Your task to perform on an android device: delete browsing data in the chrome app Image 0: 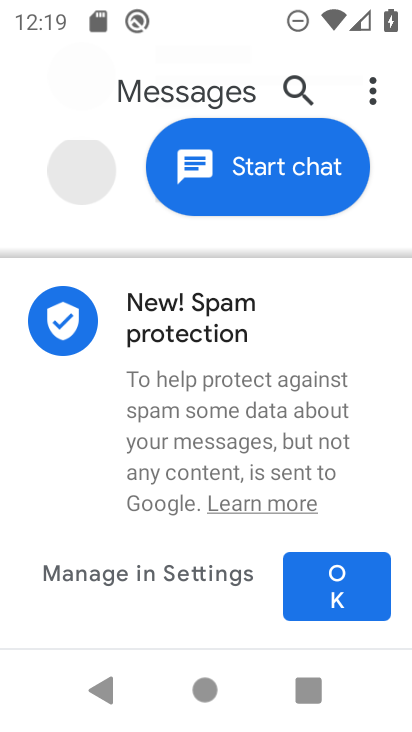
Step 0: press back button
Your task to perform on an android device: delete browsing data in the chrome app Image 1: 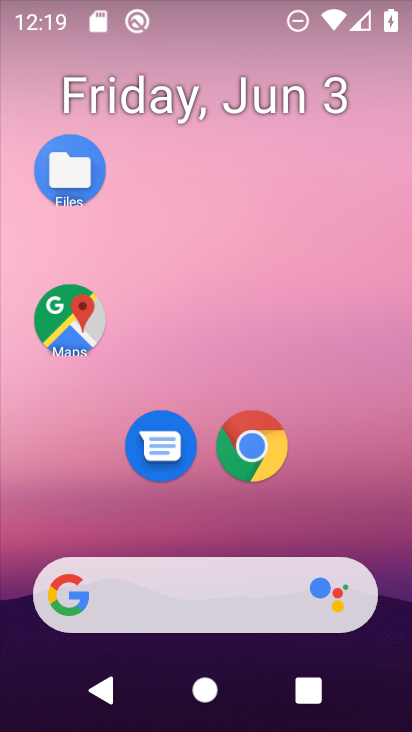
Step 1: drag from (231, 614) to (119, 34)
Your task to perform on an android device: delete browsing data in the chrome app Image 2: 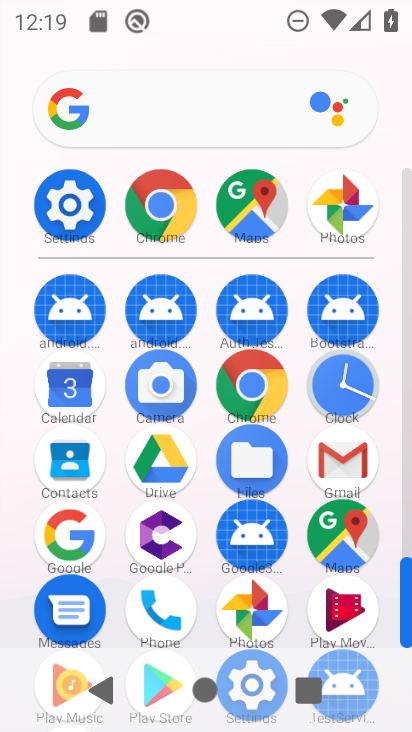
Step 2: click (253, 373)
Your task to perform on an android device: delete browsing data in the chrome app Image 3: 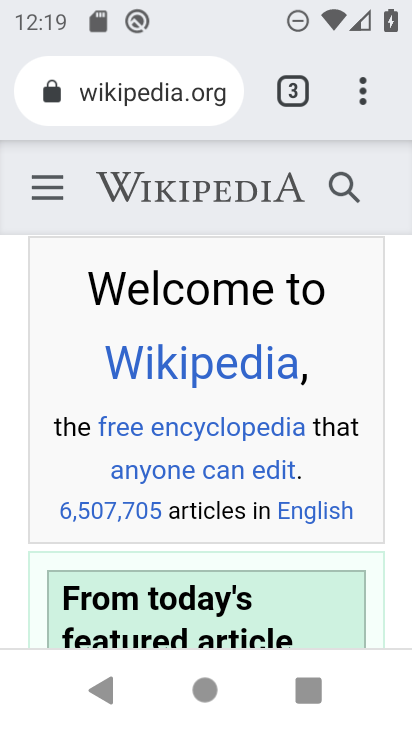
Step 3: drag from (354, 98) to (81, 516)
Your task to perform on an android device: delete browsing data in the chrome app Image 4: 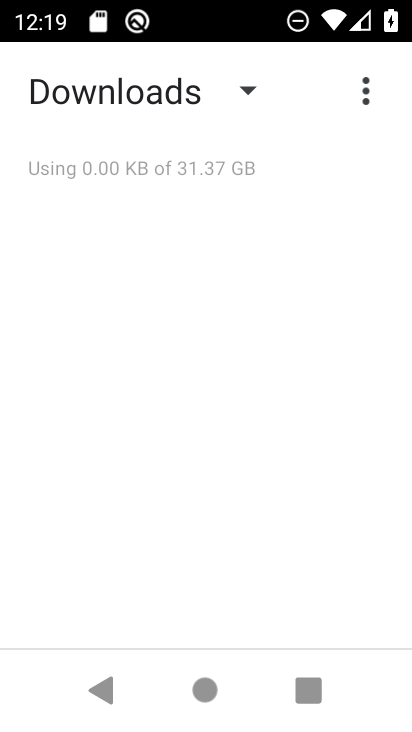
Step 4: click (367, 86)
Your task to perform on an android device: delete browsing data in the chrome app Image 5: 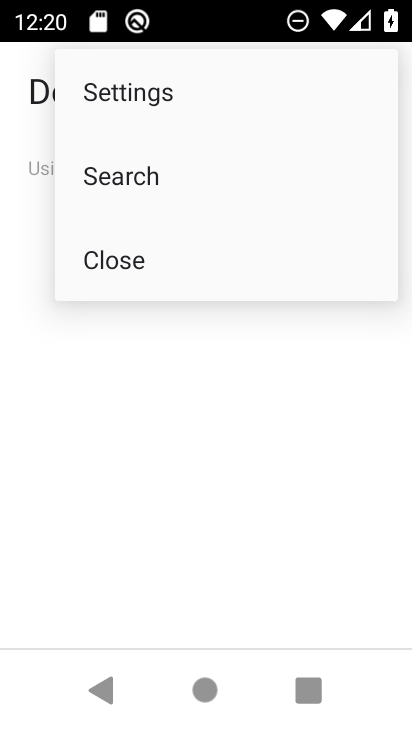
Step 5: press back button
Your task to perform on an android device: delete browsing data in the chrome app Image 6: 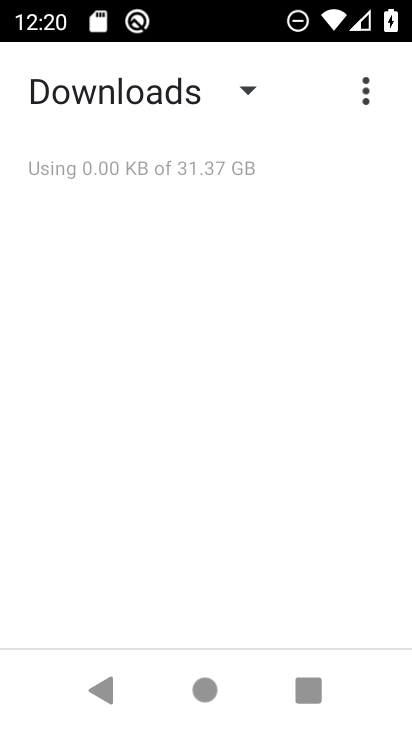
Step 6: press home button
Your task to perform on an android device: delete browsing data in the chrome app Image 7: 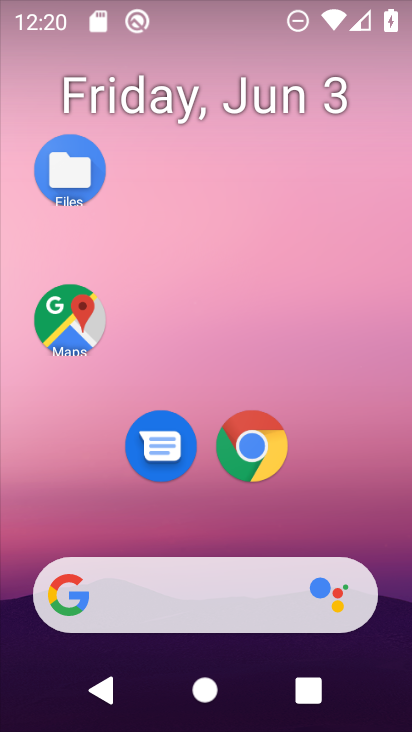
Step 7: drag from (280, 656) to (150, 80)
Your task to perform on an android device: delete browsing data in the chrome app Image 8: 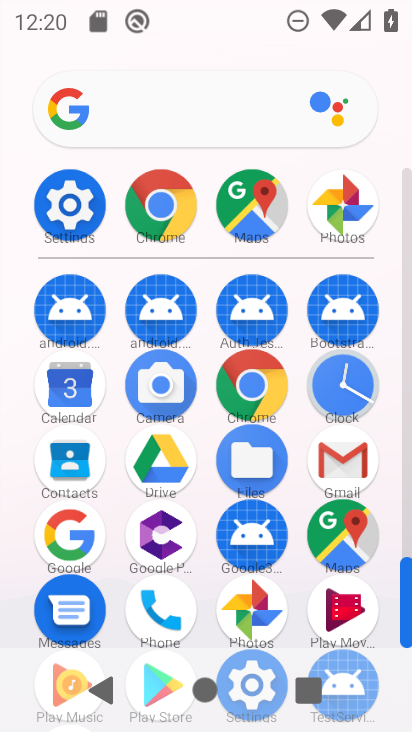
Step 8: click (156, 208)
Your task to perform on an android device: delete browsing data in the chrome app Image 9: 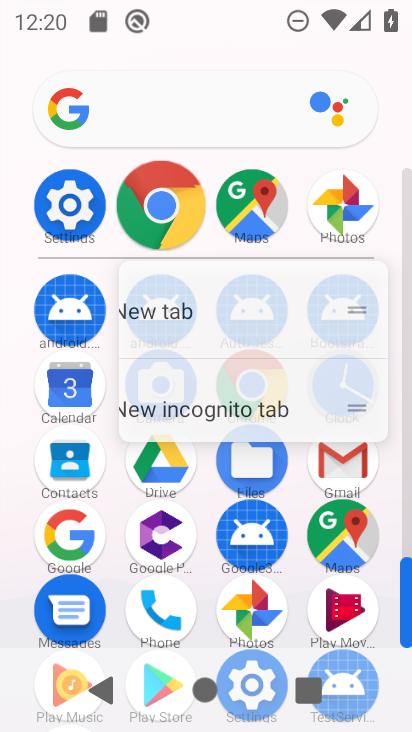
Step 9: click (156, 209)
Your task to perform on an android device: delete browsing data in the chrome app Image 10: 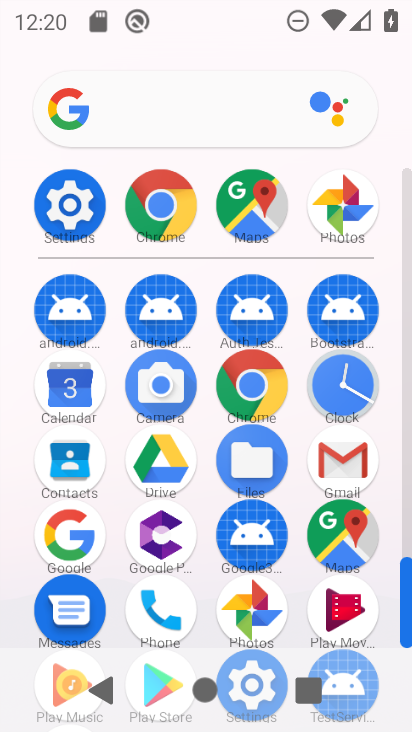
Step 10: click (172, 205)
Your task to perform on an android device: delete browsing data in the chrome app Image 11: 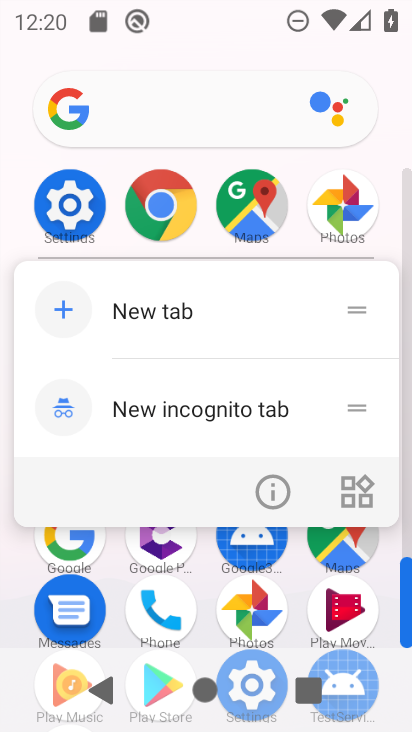
Step 11: click (151, 304)
Your task to perform on an android device: delete browsing data in the chrome app Image 12: 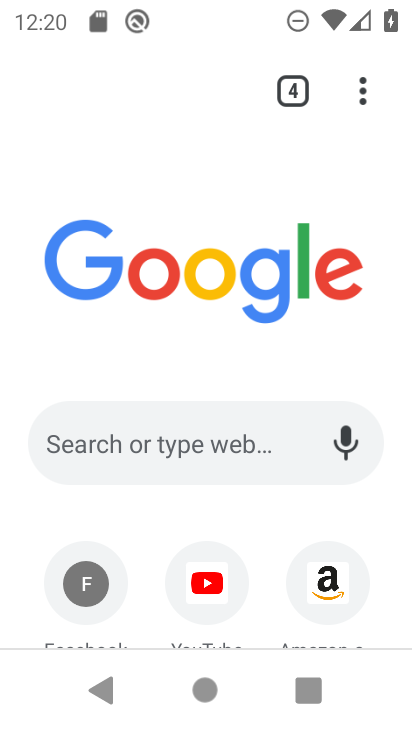
Step 12: drag from (358, 94) to (84, 244)
Your task to perform on an android device: delete browsing data in the chrome app Image 13: 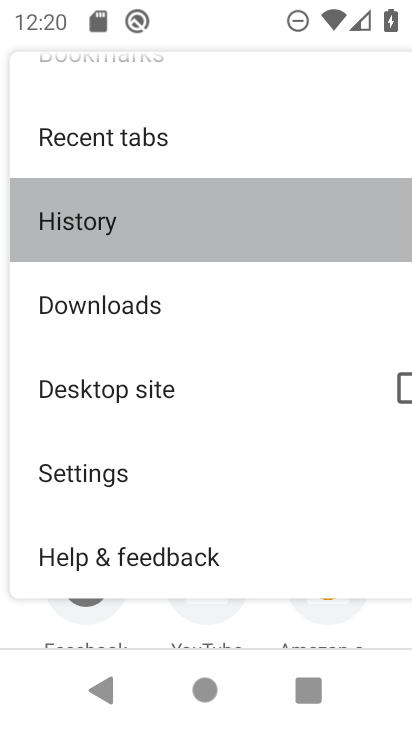
Step 13: click (84, 244)
Your task to perform on an android device: delete browsing data in the chrome app Image 14: 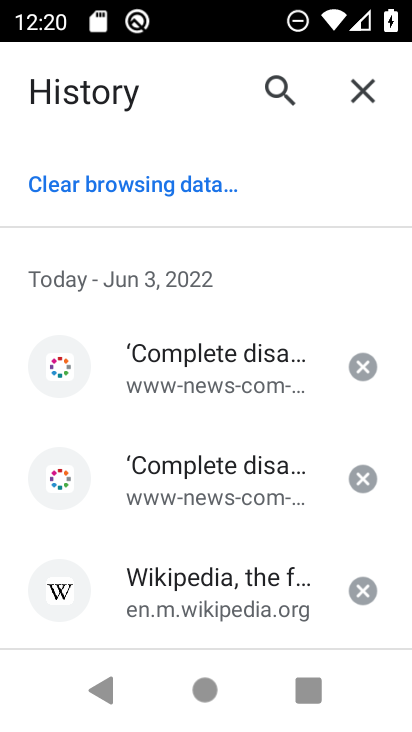
Step 14: click (168, 190)
Your task to perform on an android device: delete browsing data in the chrome app Image 15: 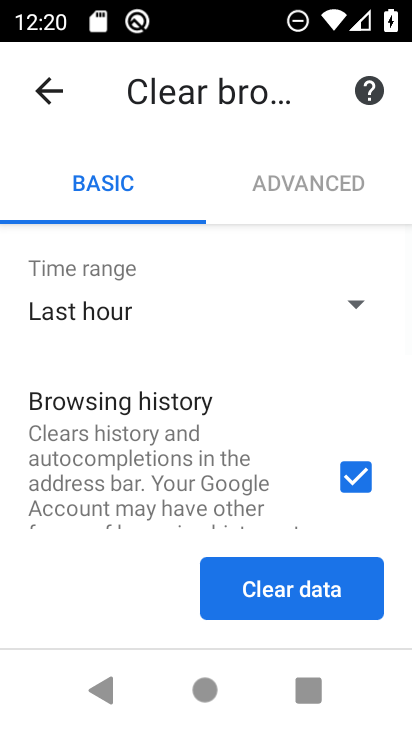
Step 15: click (284, 589)
Your task to perform on an android device: delete browsing data in the chrome app Image 16: 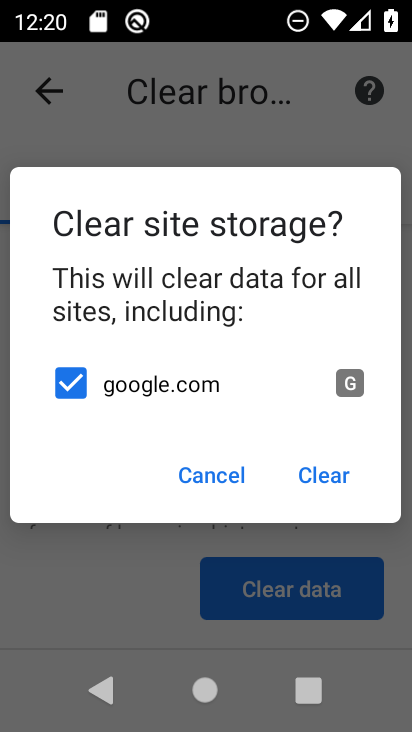
Step 16: click (344, 473)
Your task to perform on an android device: delete browsing data in the chrome app Image 17: 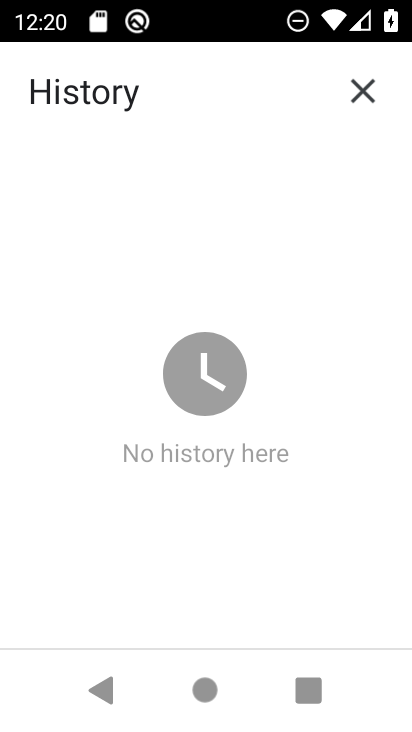
Step 17: task complete